Your task to perform on an android device: Open Android settings Image 0: 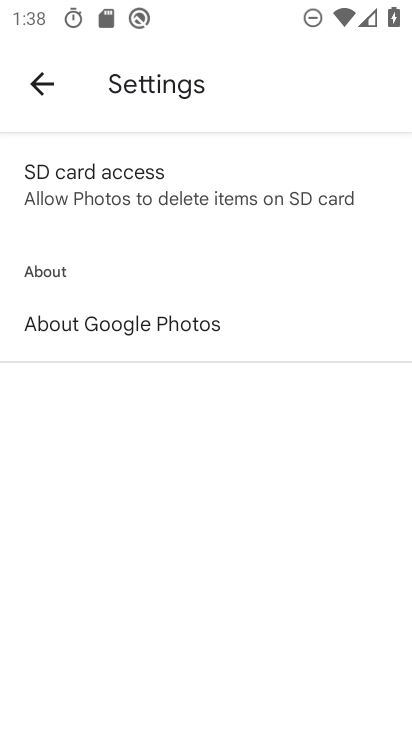
Step 0: press home button
Your task to perform on an android device: Open Android settings Image 1: 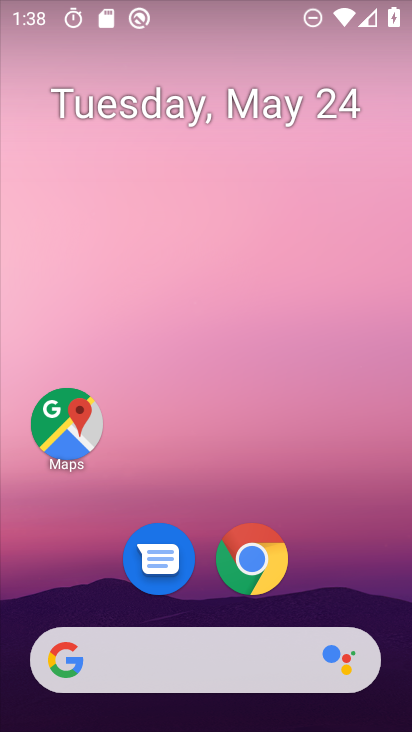
Step 1: drag from (395, 542) to (370, 73)
Your task to perform on an android device: Open Android settings Image 2: 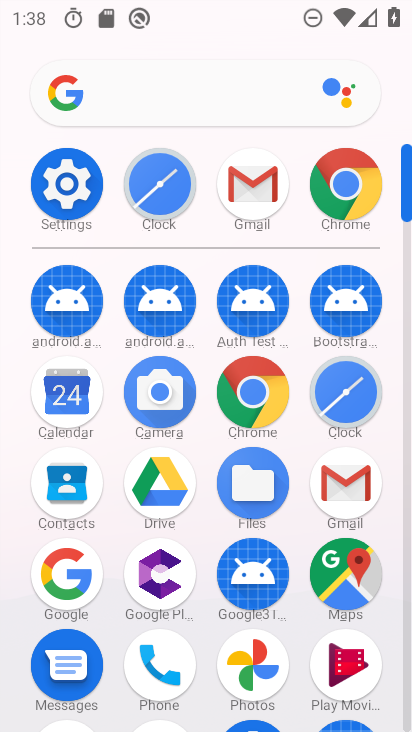
Step 2: click (82, 173)
Your task to perform on an android device: Open Android settings Image 3: 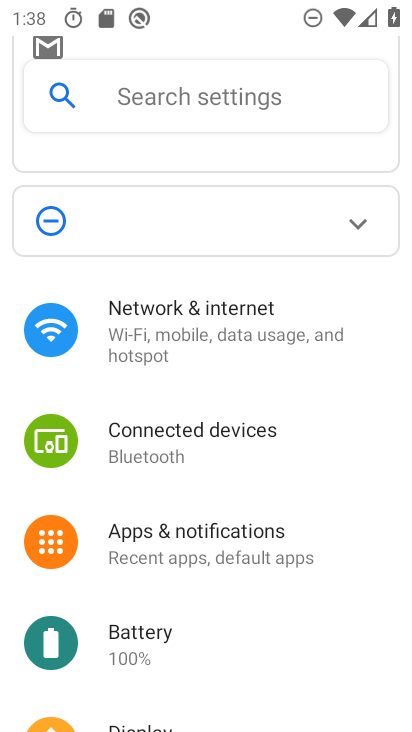
Step 3: task complete